Your task to perform on an android device: What's the weather going to be tomorrow? Image 0: 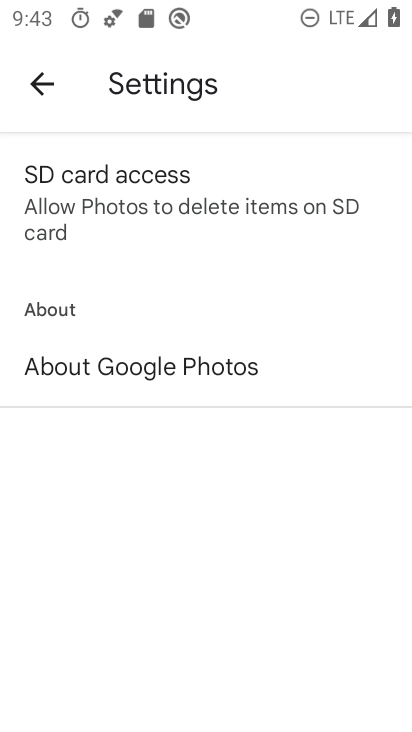
Step 0: press home button
Your task to perform on an android device: What's the weather going to be tomorrow? Image 1: 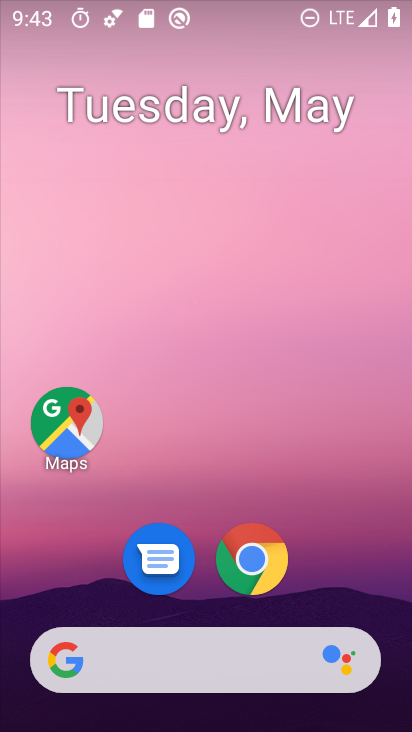
Step 1: drag from (387, 654) to (301, 61)
Your task to perform on an android device: What's the weather going to be tomorrow? Image 2: 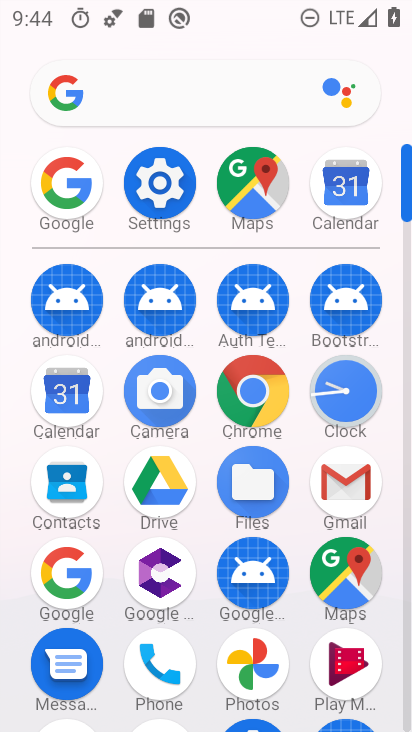
Step 2: click (75, 579)
Your task to perform on an android device: What's the weather going to be tomorrow? Image 3: 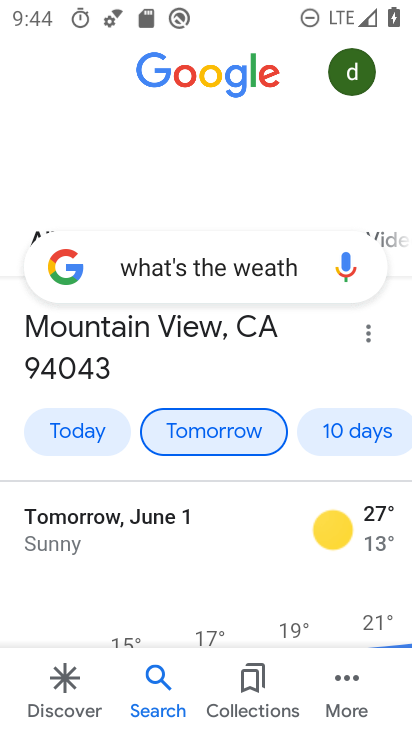
Step 3: press back button
Your task to perform on an android device: What's the weather going to be tomorrow? Image 4: 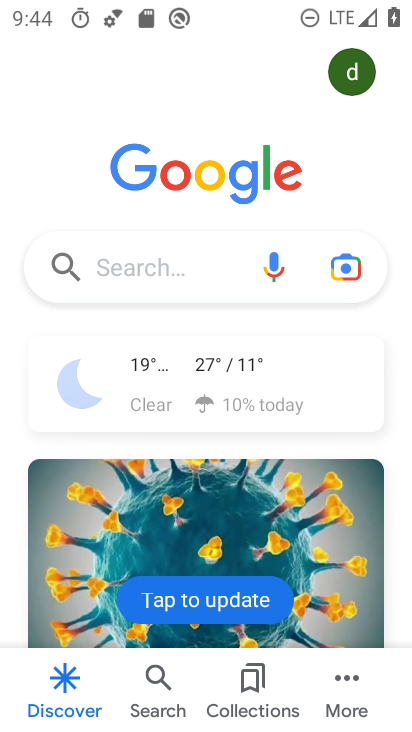
Step 4: click (134, 293)
Your task to perform on an android device: What's the weather going to be tomorrow? Image 5: 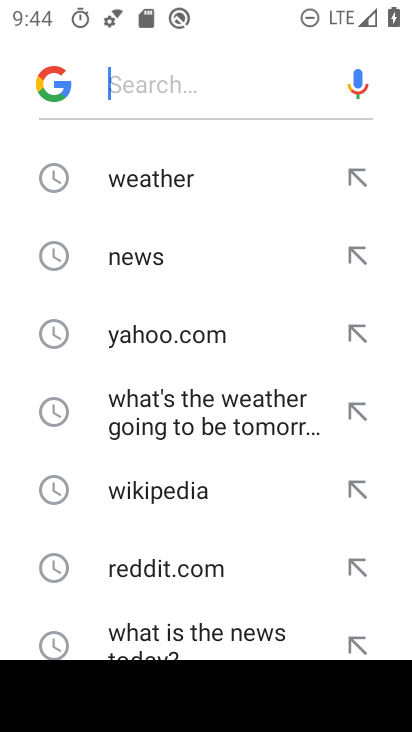
Step 5: click (204, 417)
Your task to perform on an android device: What's the weather going to be tomorrow? Image 6: 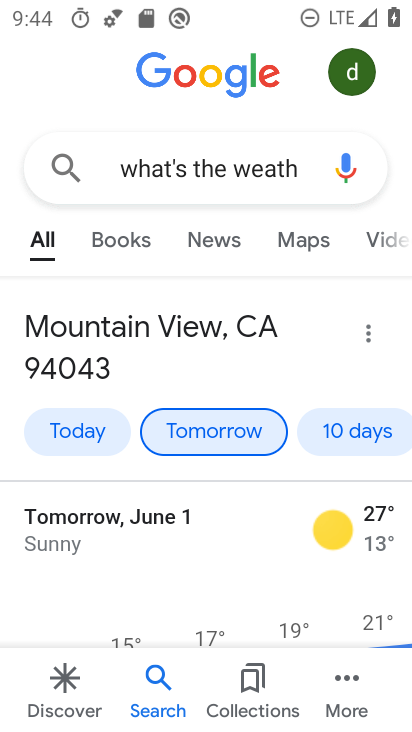
Step 6: task complete